Your task to perform on an android device: open app "Reddit" (install if not already installed) and go to login screen Image 0: 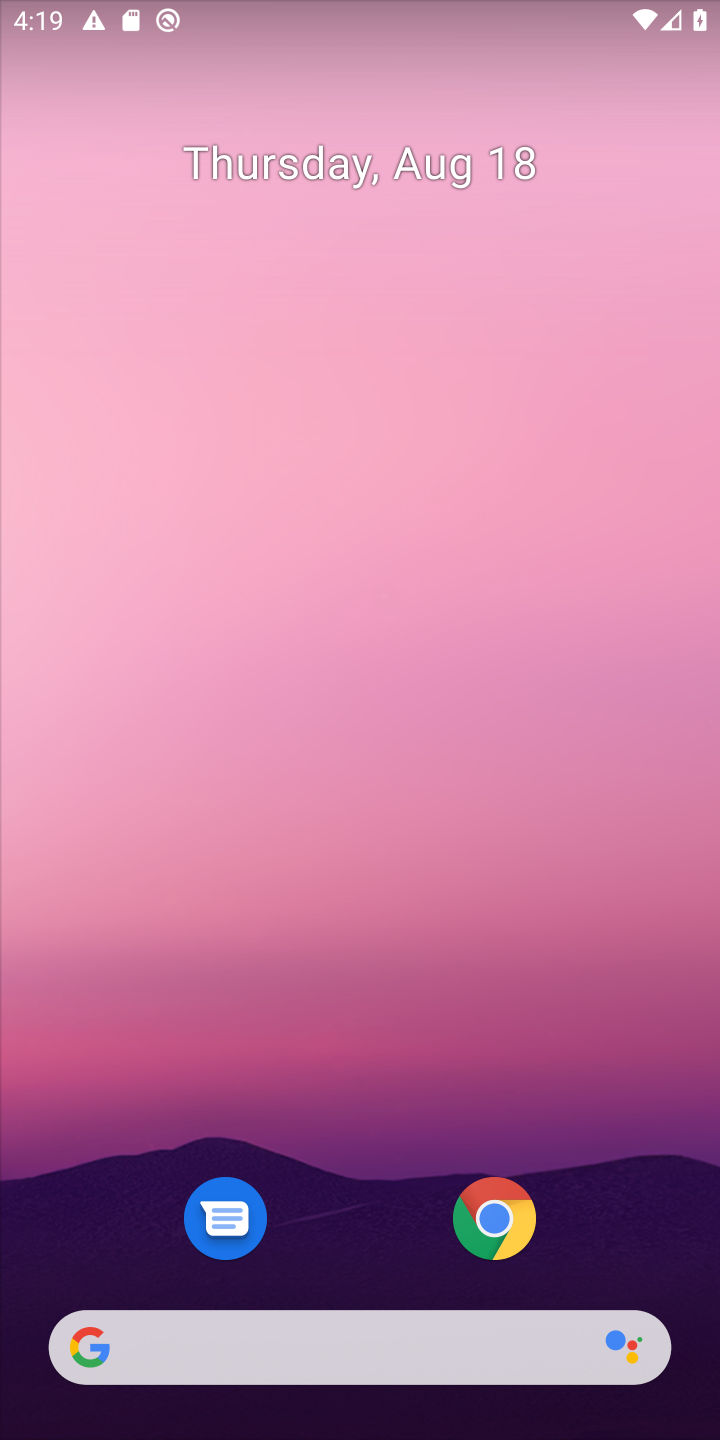
Step 0: drag from (363, 1163) to (423, 382)
Your task to perform on an android device: open app "Reddit" (install if not already installed) and go to login screen Image 1: 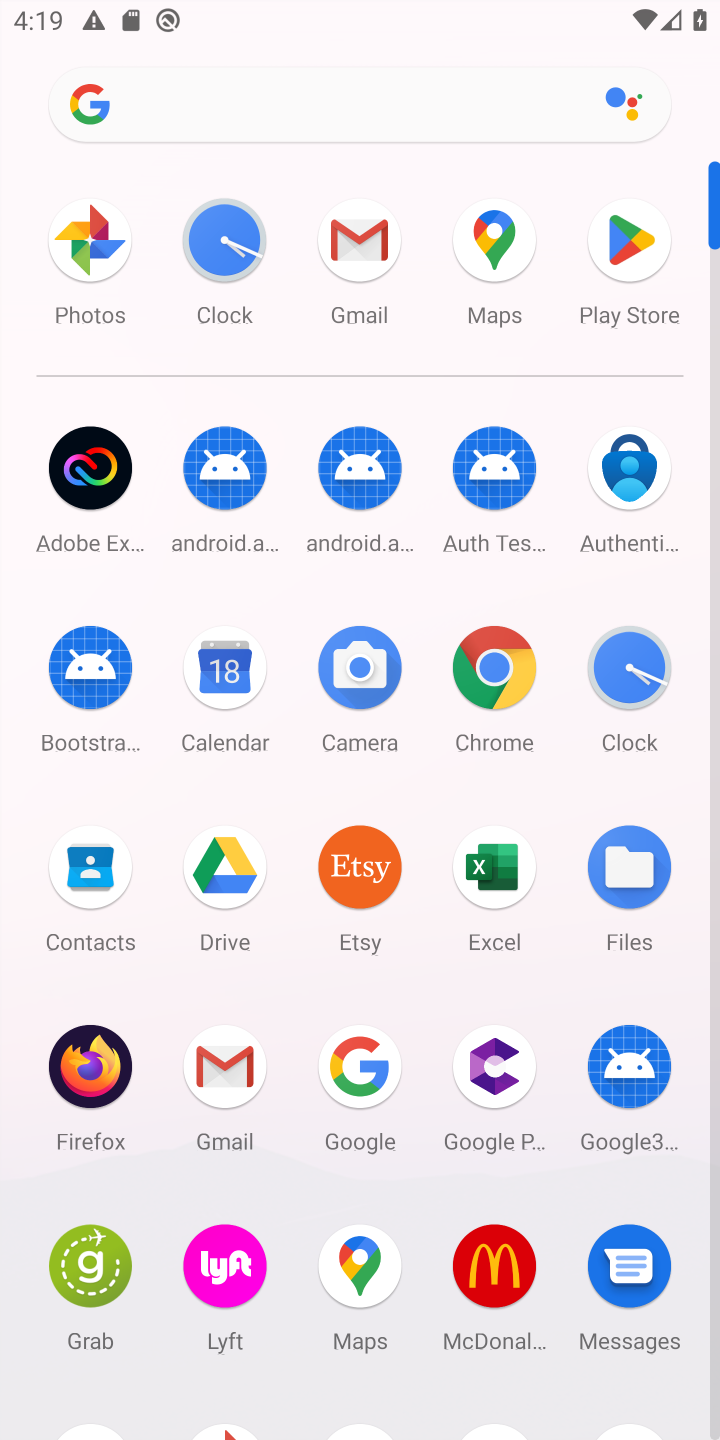
Step 1: click (613, 252)
Your task to perform on an android device: open app "Reddit" (install if not already installed) and go to login screen Image 2: 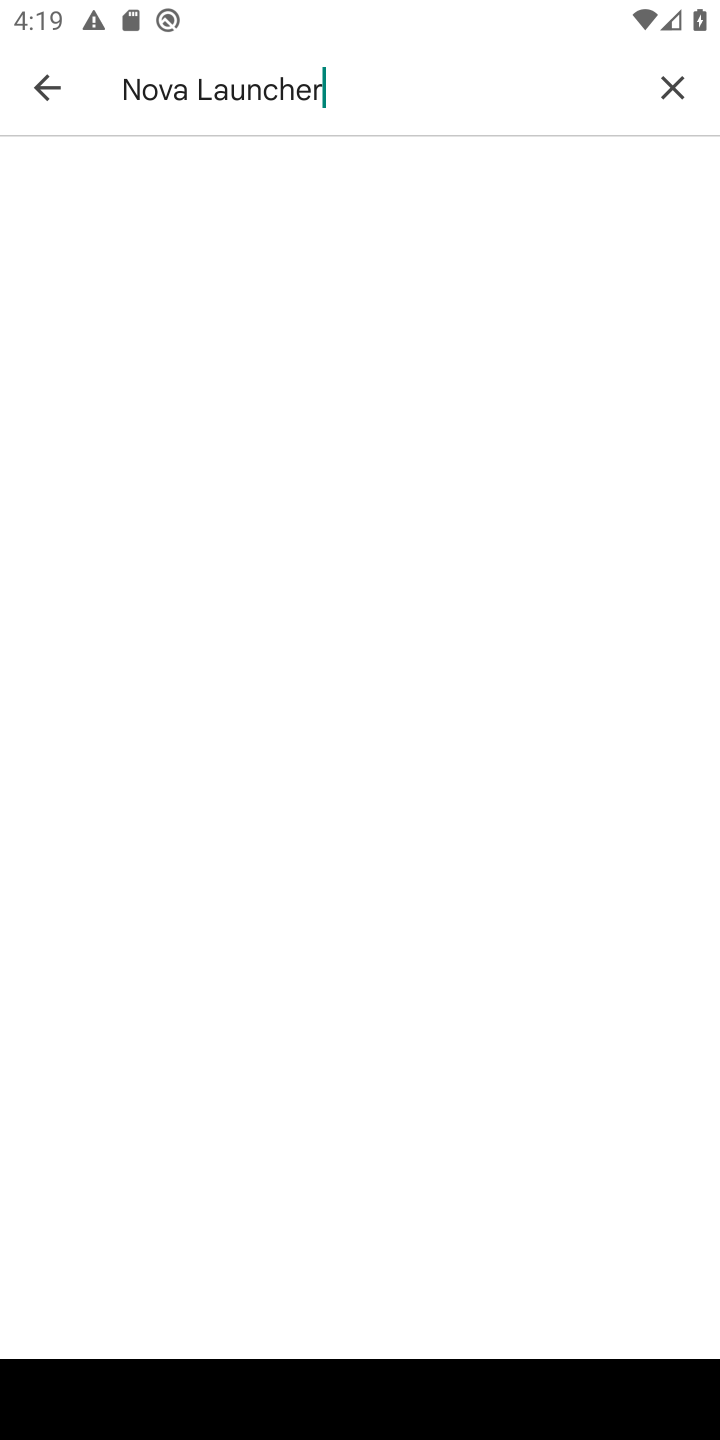
Step 2: click (668, 67)
Your task to perform on an android device: open app "Reddit" (install if not already installed) and go to login screen Image 3: 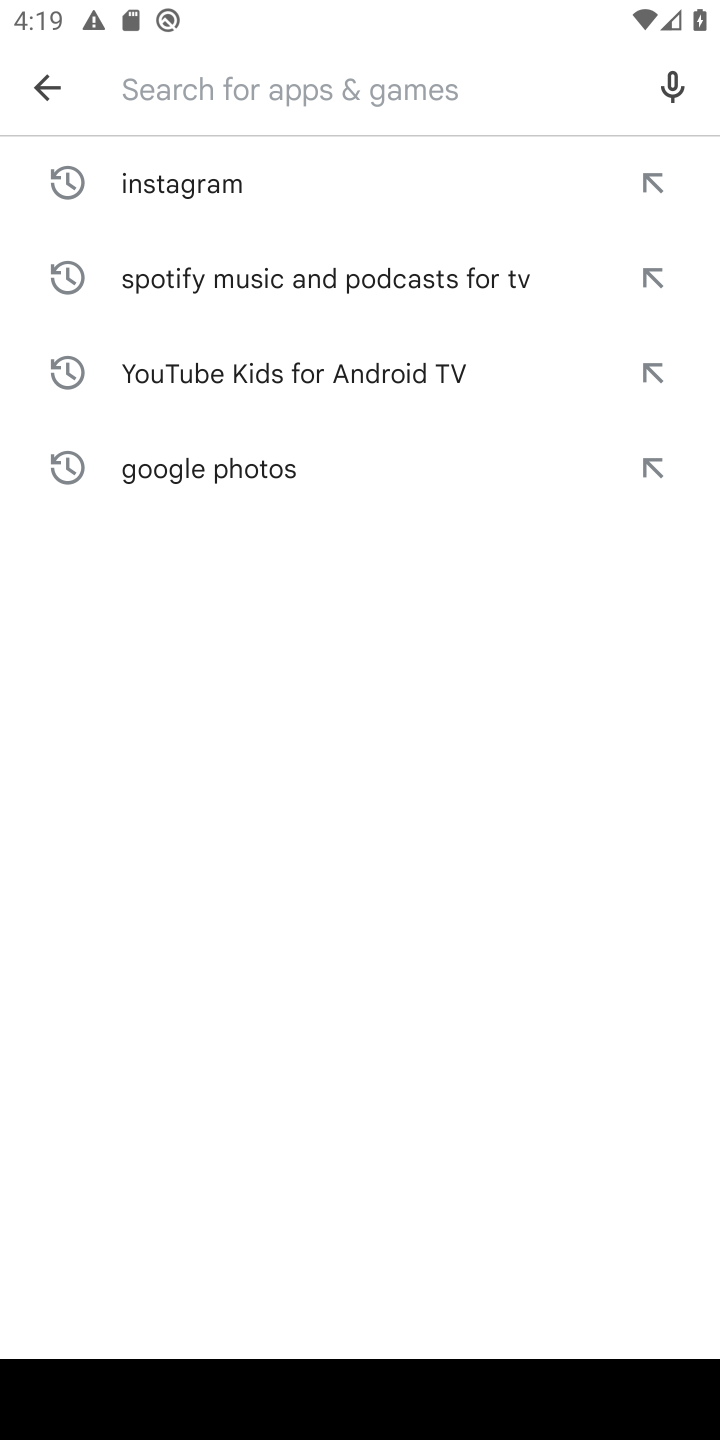
Step 3: type "Reddit"
Your task to perform on an android device: open app "Reddit" (install if not already installed) and go to login screen Image 4: 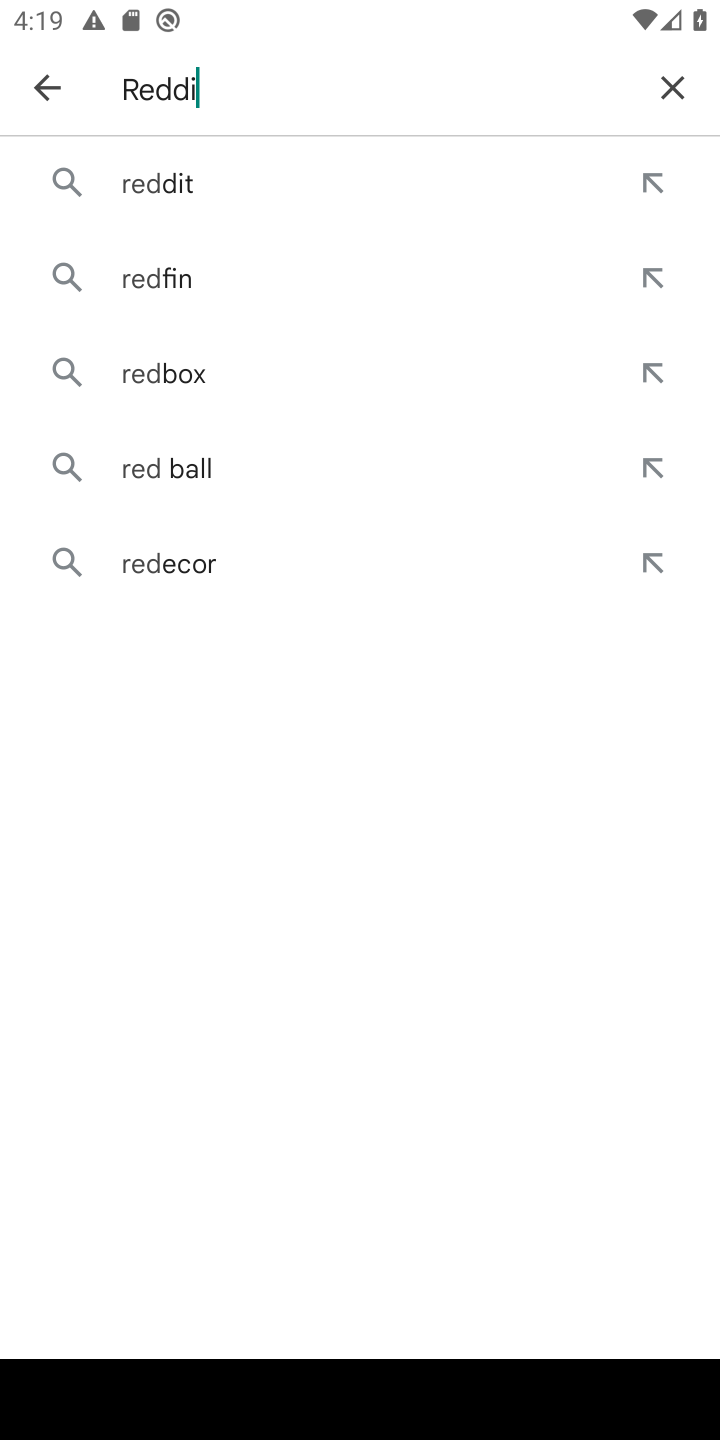
Step 4: type ""
Your task to perform on an android device: open app "Reddit" (install if not already installed) and go to login screen Image 5: 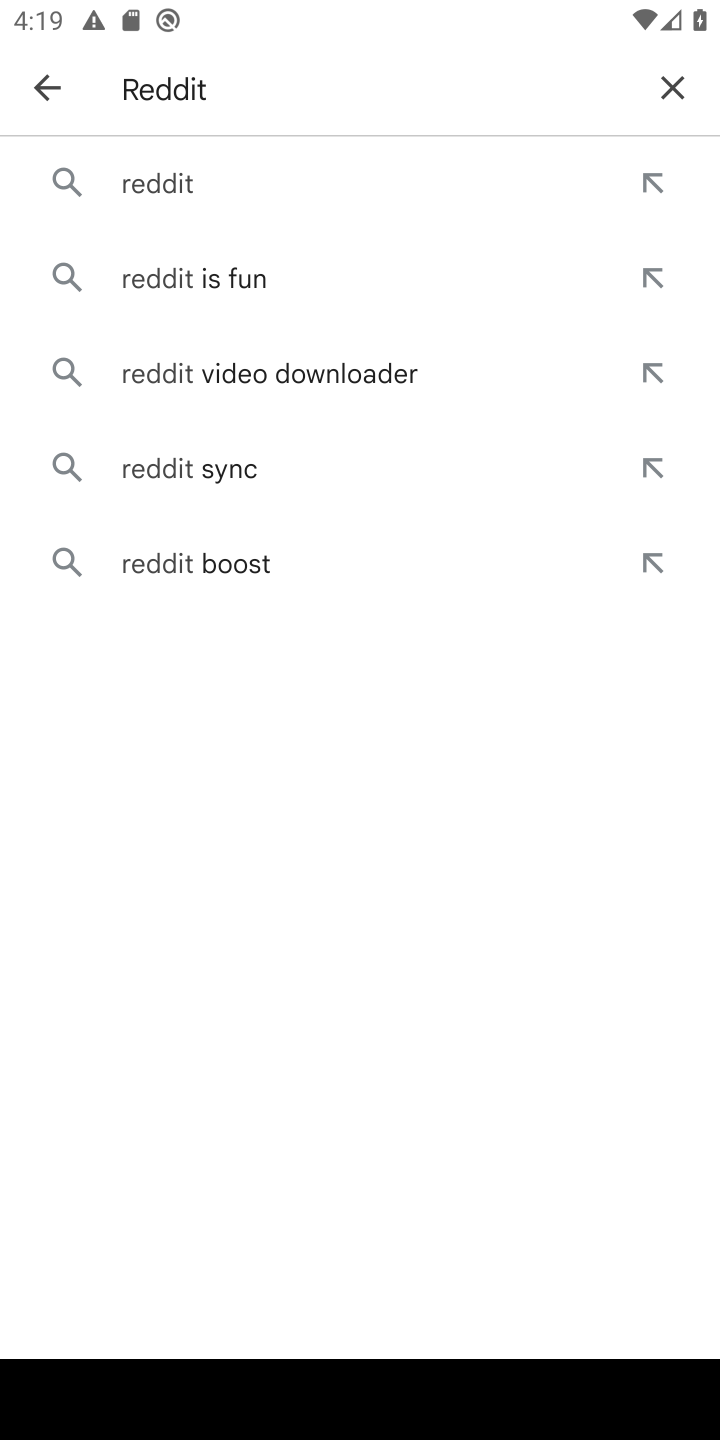
Step 5: click (200, 184)
Your task to perform on an android device: open app "Reddit" (install if not already installed) and go to login screen Image 6: 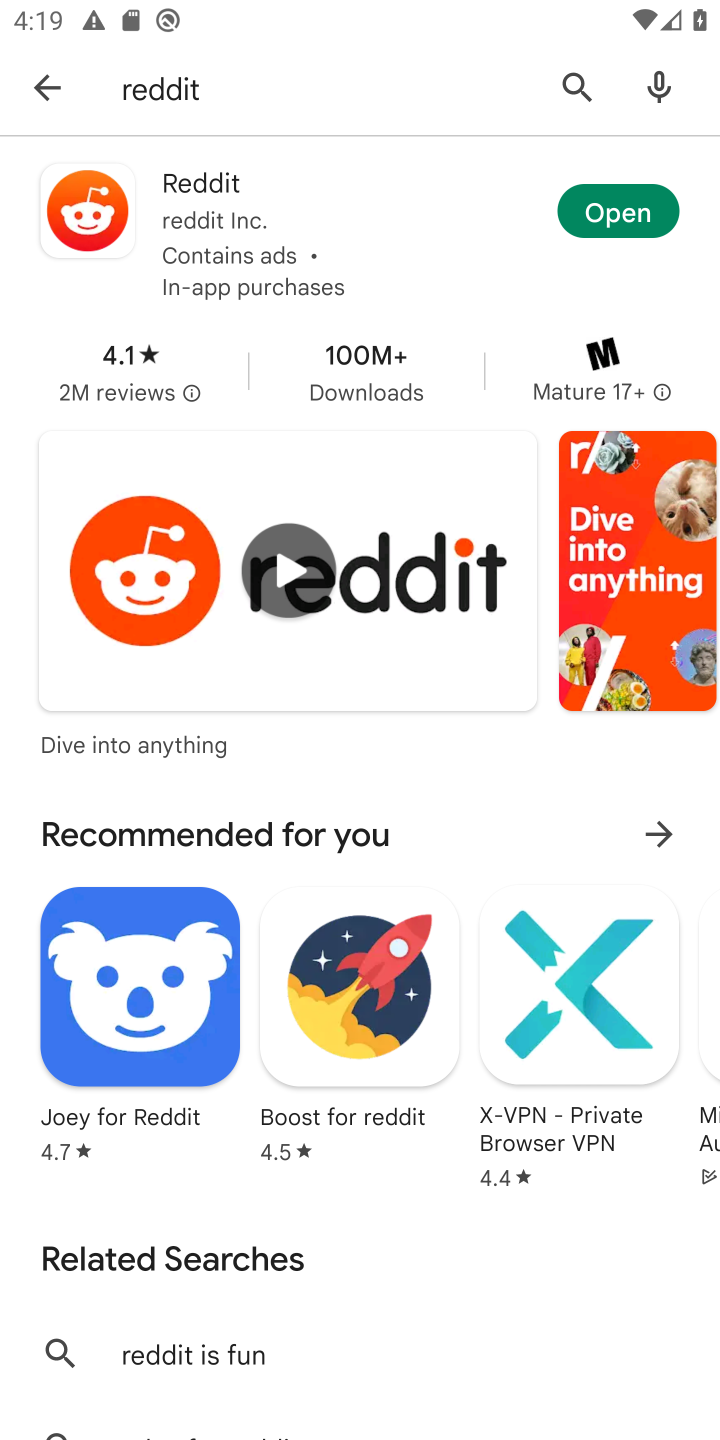
Step 6: click (633, 211)
Your task to perform on an android device: open app "Reddit" (install if not already installed) and go to login screen Image 7: 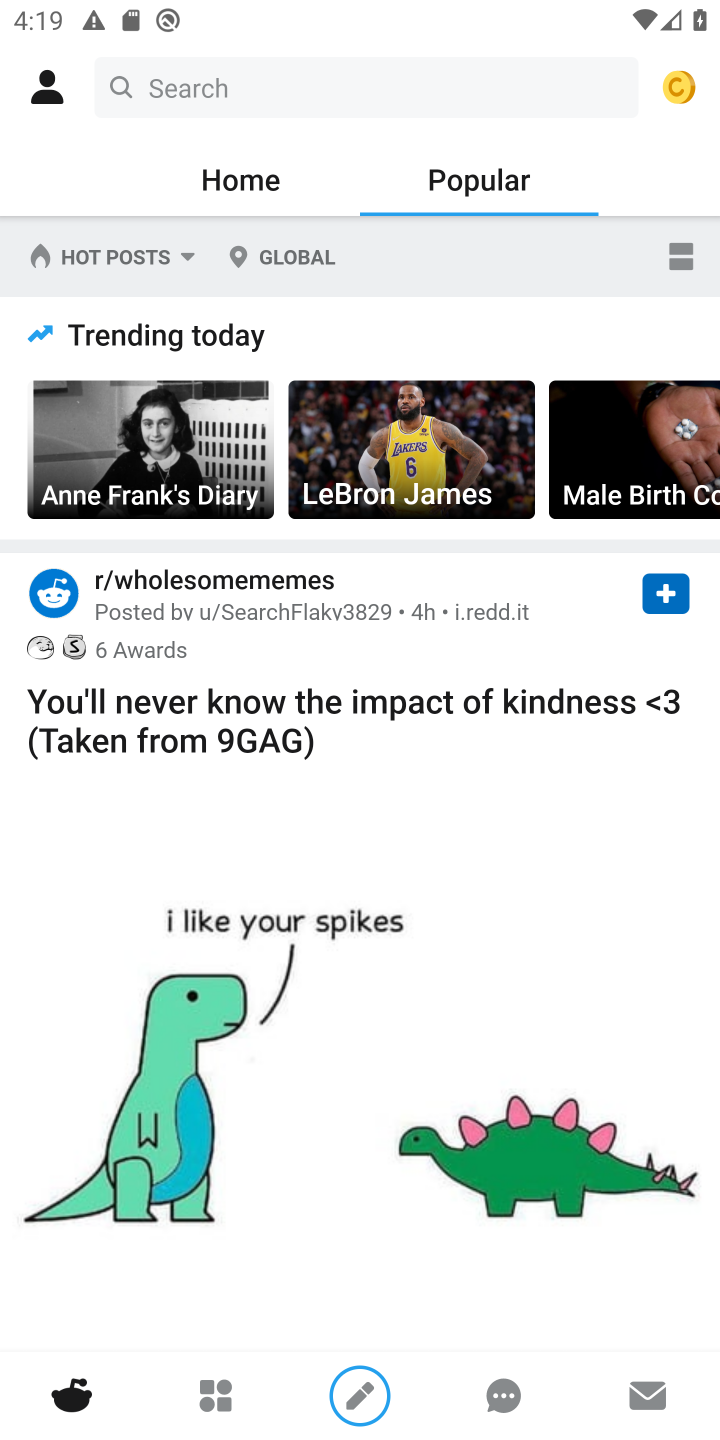
Step 7: task complete